Your task to perform on an android device: allow cookies in the chrome app Image 0: 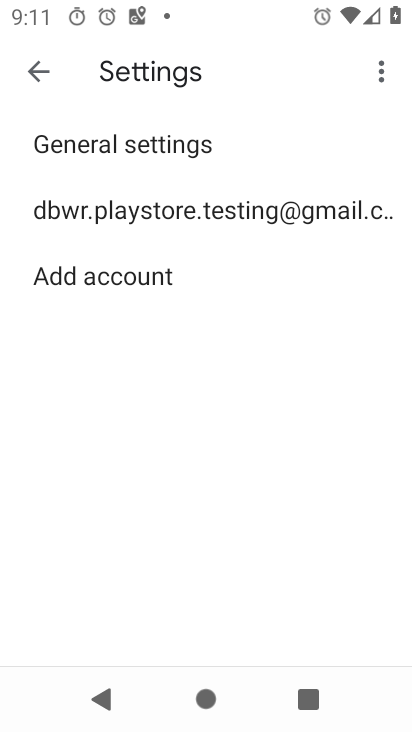
Step 0: press back button
Your task to perform on an android device: allow cookies in the chrome app Image 1: 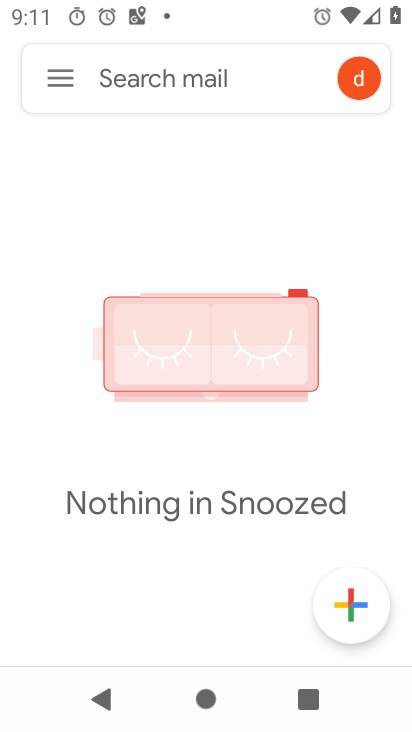
Step 1: press back button
Your task to perform on an android device: allow cookies in the chrome app Image 2: 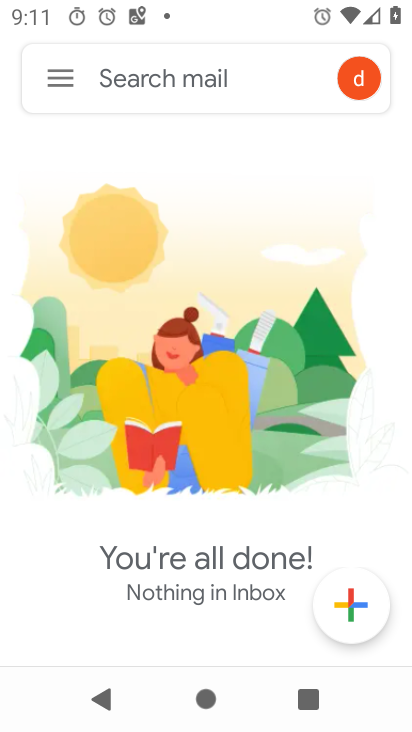
Step 2: press back button
Your task to perform on an android device: allow cookies in the chrome app Image 3: 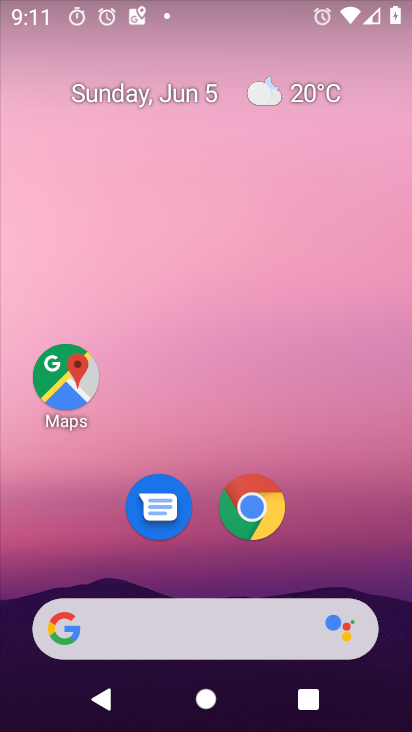
Step 3: drag from (368, 514) to (255, 25)
Your task to perform on an android device: allow cookies in the chrome app Image 4: 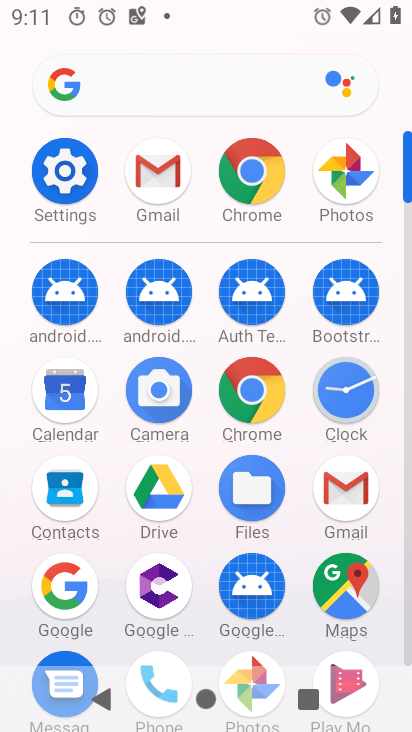
Step 4: click (254, 163)
Your task to perform on an android device: allow cookies in the chrome app Image 5: 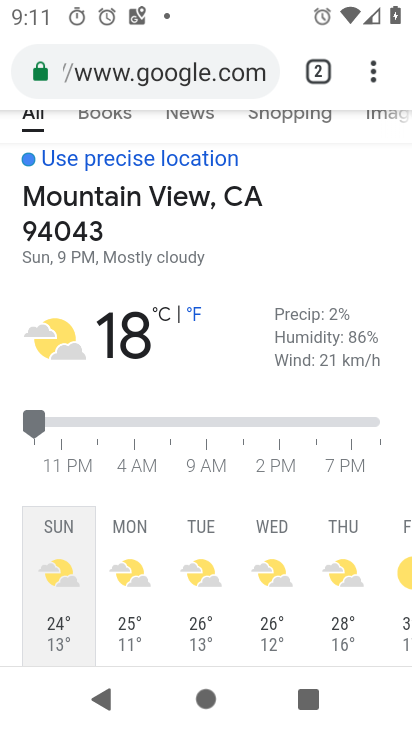
Step 5: drag from (372, 65) to (182, 495)
Your task to perform on an android device: allow cookies in the chrome app Image 6: 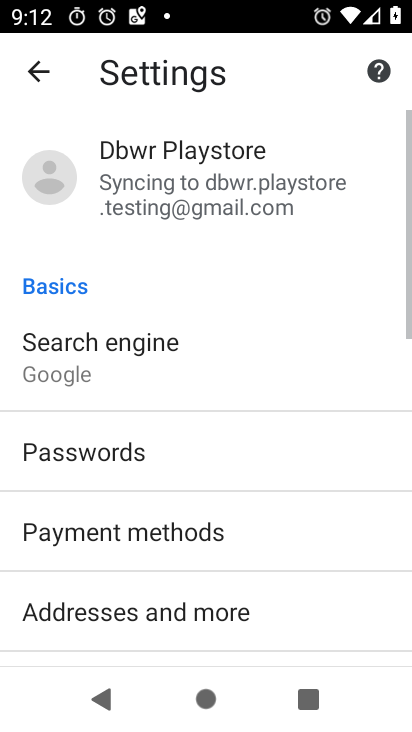
Step 6: drag from (230, 577) to (248, 190)
Your task to perform on an android device: allow cookies in the chrome app Image 7: 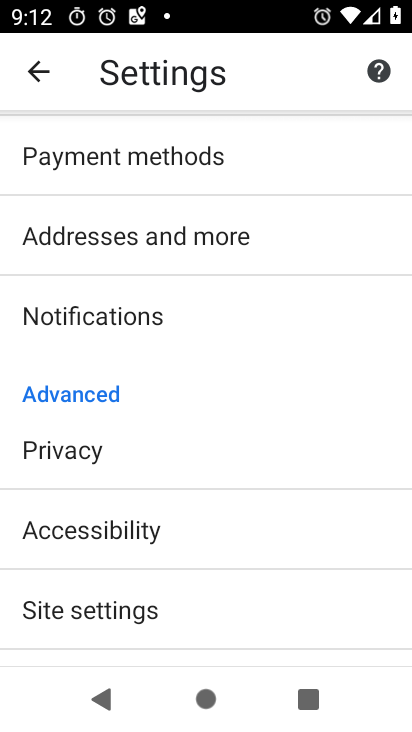
Step 7: drag from (264, 566) to (272, 286)
Your task to perform on an android device: allow cookies in the chrome app Image 8: 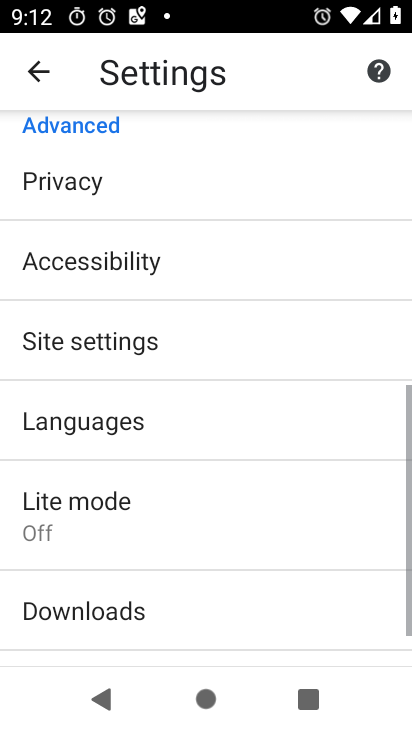
Step 8: click (173, 161)
Your task to perform on an android device: allow cookies in the chrome app Image 9: 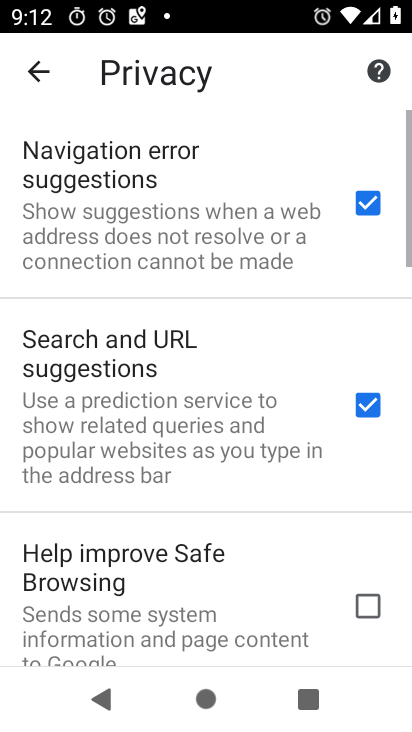
Step 9: drag from (214, 598) to (244, 133)
Your task to perform on an android device: allow cookies in the chrome app Image 10: 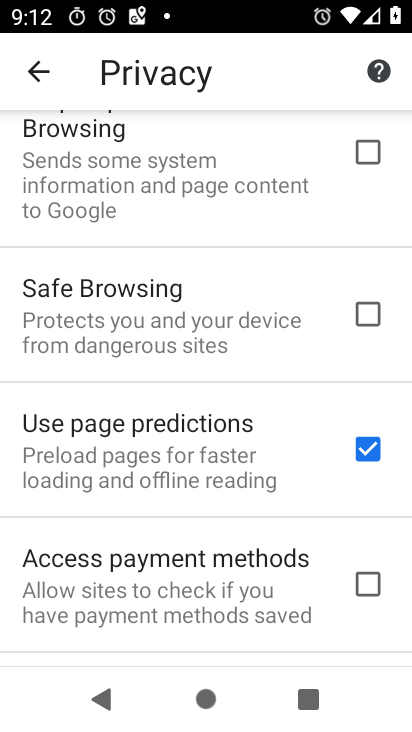
Step 10: click (245, 146)
Your task to perform on an android device: allow cookies in the chrome app Image 11: 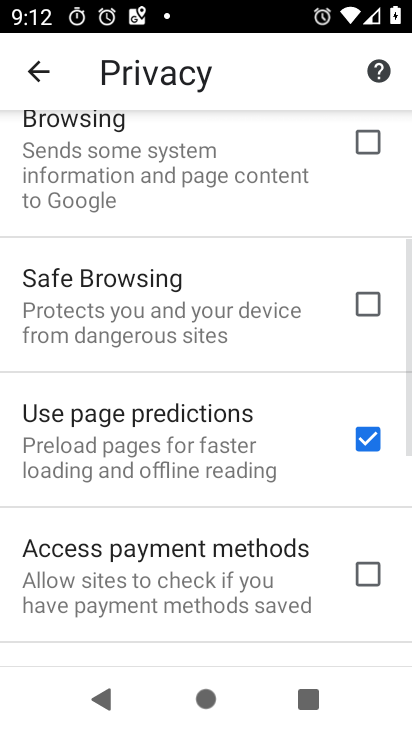
Step 11: click (36, 71)
Your task to perform on an android device: allow cookies in the chrome app Image 12: 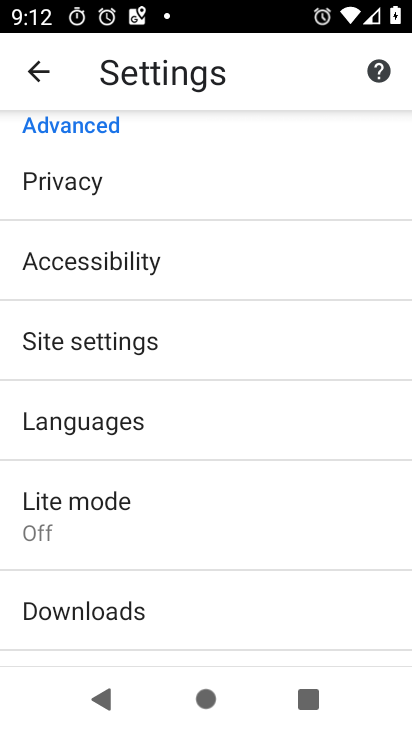
Step 12: click (143, 341)
Your task to perform on an android device: allow cookies in the chrome app Image 13: 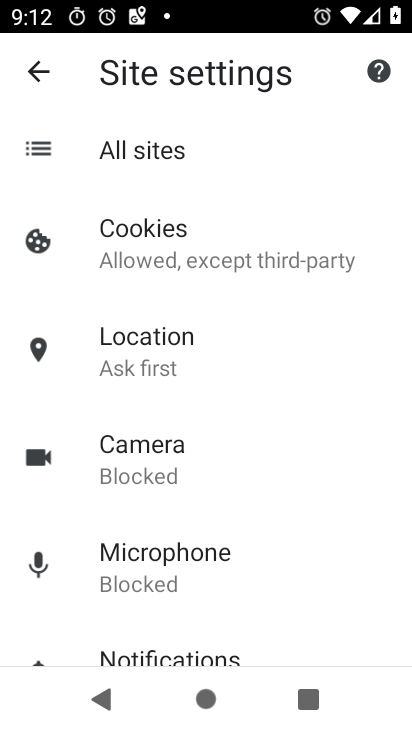
Step 13: click (214, 242)
Your task to perform on an android device: allow cookies in the chrome app Image 14: 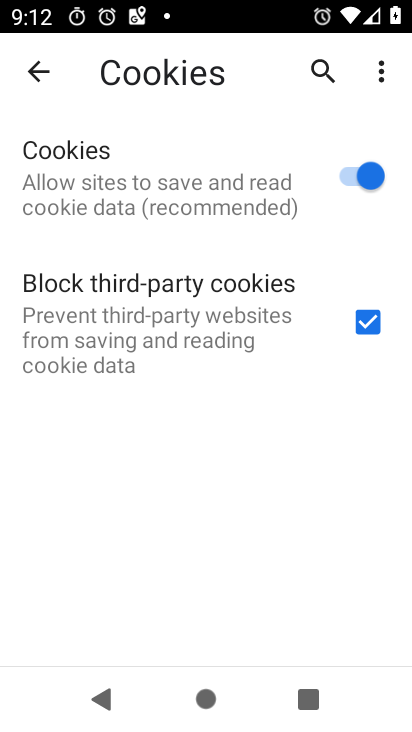
Step 14: task complete